Your task to perform on an android device: Show me the alarms in the clock app Image 0: 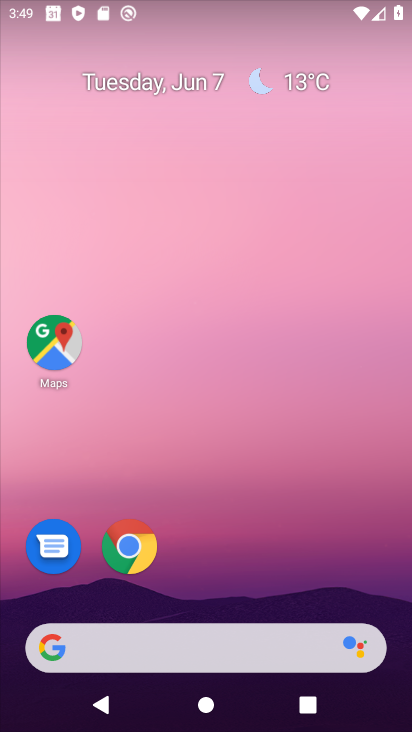
Step 0: drag from (173, 565) to (26, 66)
Your task to perform on an android device: Show me the alarms in the clock app Image 1: 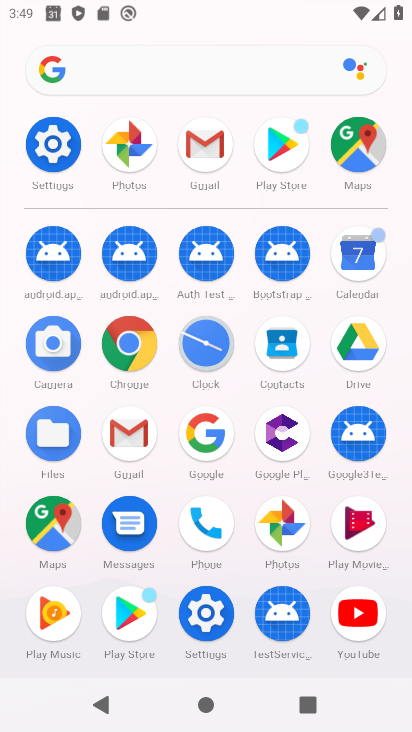
Step 1: click (204, 344)
Your task to perform on an android device: Show me the alarms in the clock app Image 2: 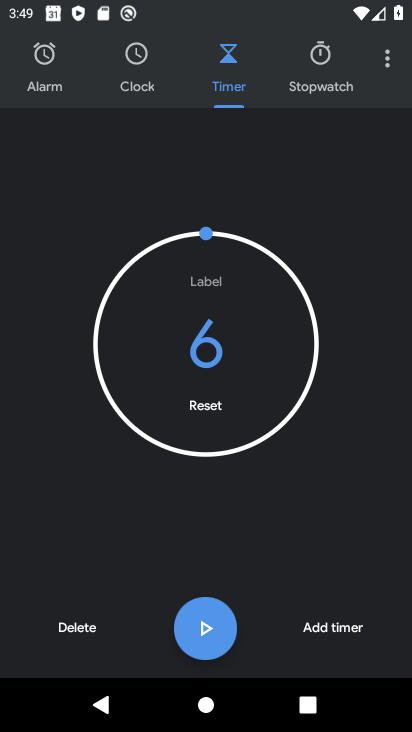
Step 2: click (41, 41)
Your task to perform on an android device: Show me the alarms in the clock app Image 3: 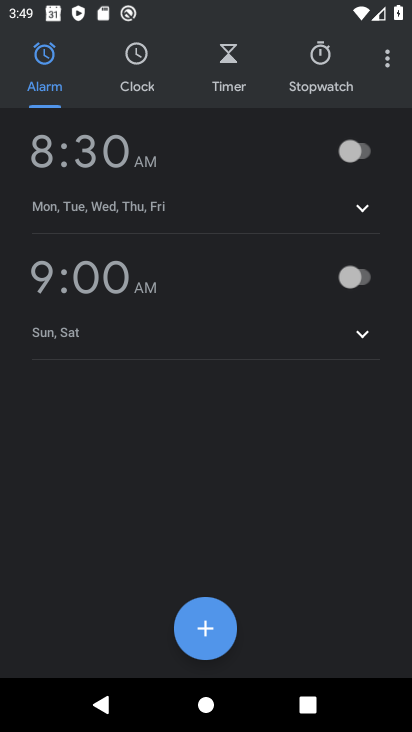
Step 3: task complete